Your task to perform on an android device: stop showing notifications on the lock screen Image 0: 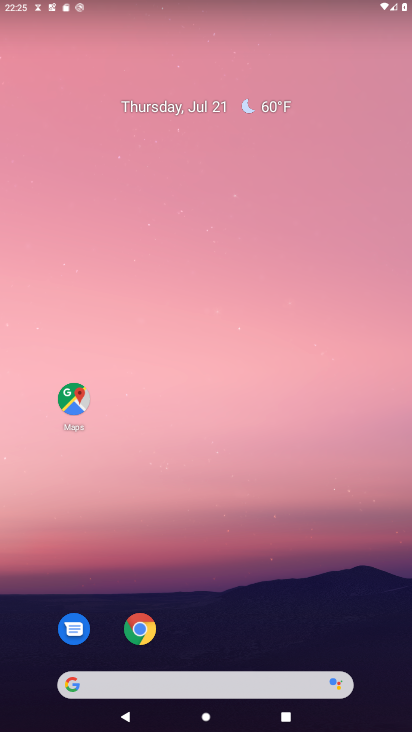
Step 0: drag from (279, 641) to (255, 335)
Your task to perform on an android device: stop showing notifications on the lock screen Image 1: 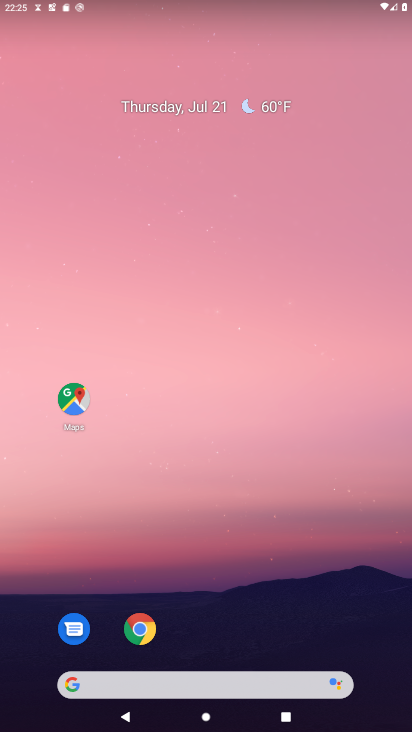
Step 1: drag from (190, 637) to (209, 305)
Your task to perform on an android device: stop showing notifications on the lock screen Image 2: 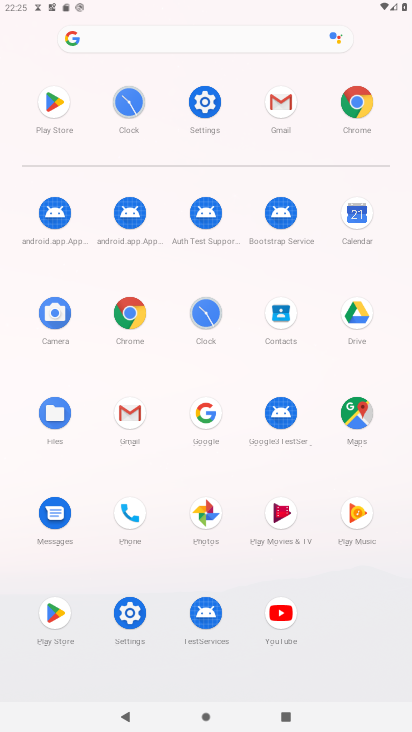
Step 2: click (199, 103)
Your task to perform on an android device: stop showing notifications on the lock screen Image 3: 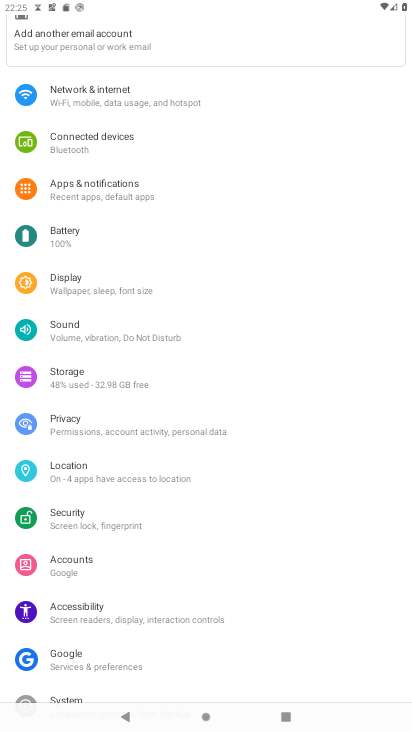
Step 3: click (128, 189)
Your task to perform on an android device: stop showing notifications on the lock screen Image 4: 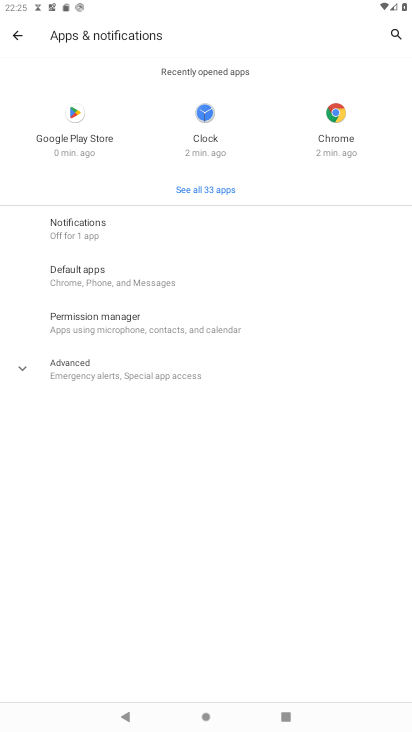
Step 4: click (118, 230)
Your task to perform on an android device: stop showing notifications on the lock screen Image 5: 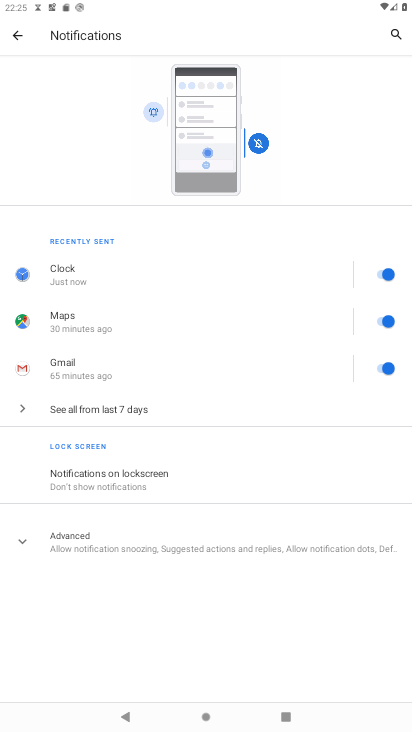
Step 5: click (184, 479)
Your task to perform on an android device: stop showing notifications on the lock screen Image 6: 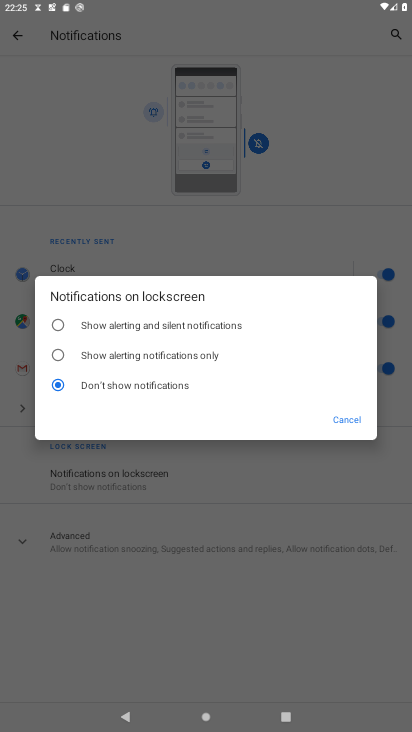
Step 6: task complete